Your task to perform on an android device: open wifi settings Image 0: 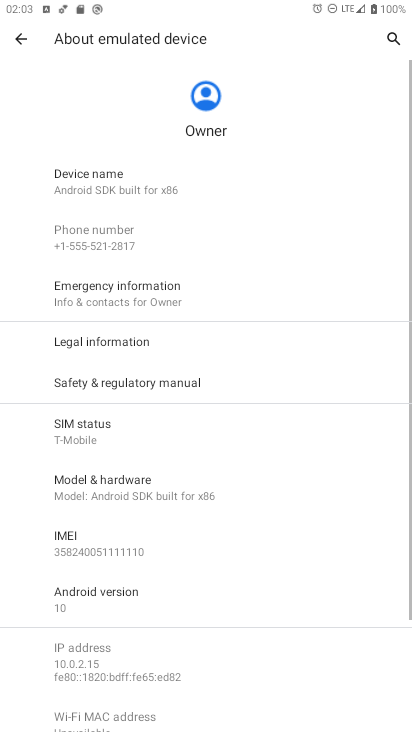
Step 0: press home button
Your task to perform on an android device: open wifi settings Image 1: 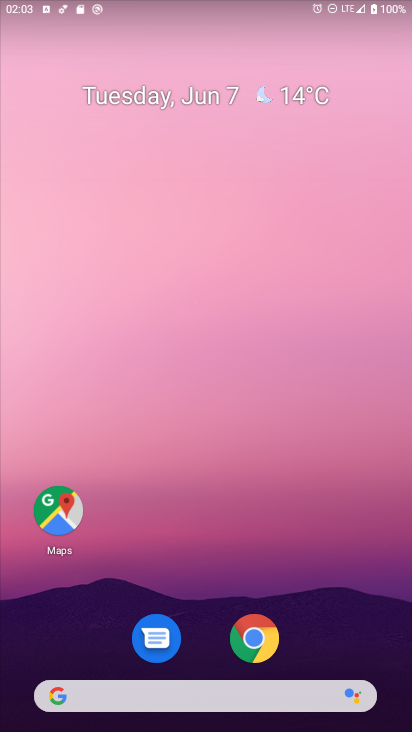
Step 1: drag from (255, 718) to (203, 220)
Your task to perform on an android device: open wifi settings Image 2: 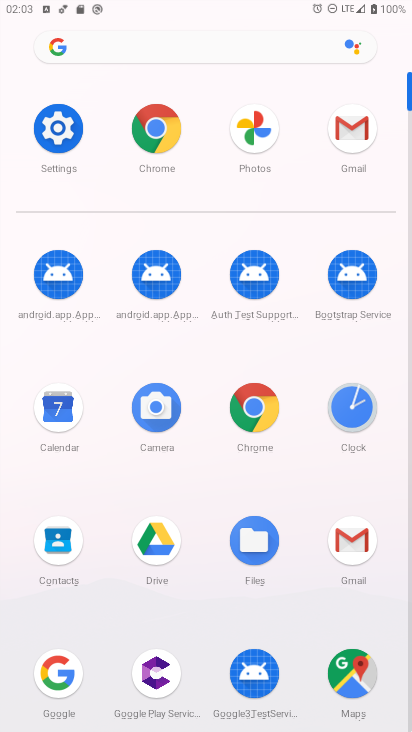
Step 2: click (64, 138)
Your task to perform on an android device: open wifi settings Image 3: 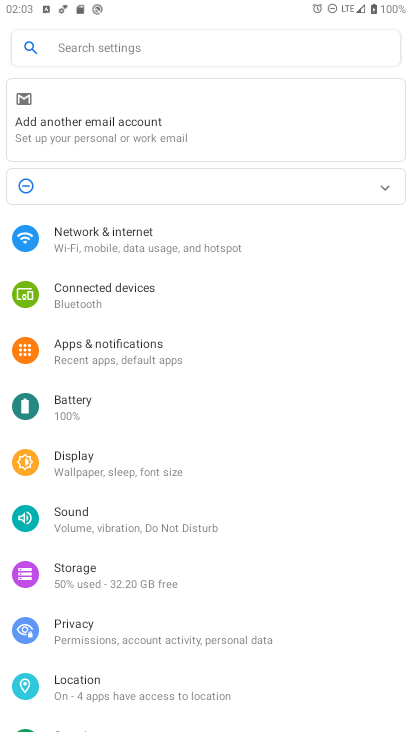
Step 3: click (132, 246)
Your task to perform on an android device: open wifi settings Image 4: 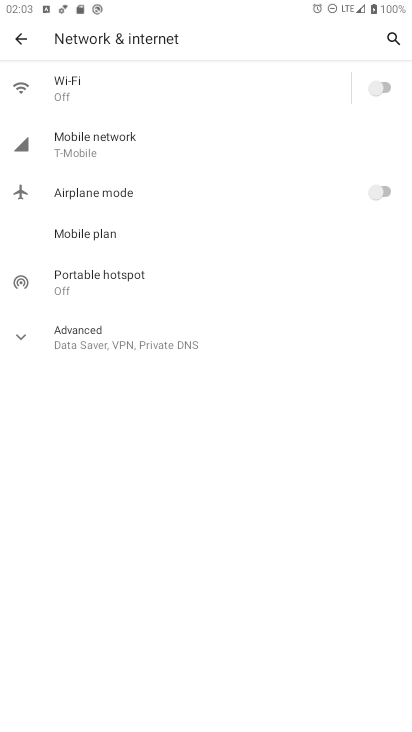
Step 4: click (196, 79)
Your task to perform on an android device: open wifi settings Image 5: 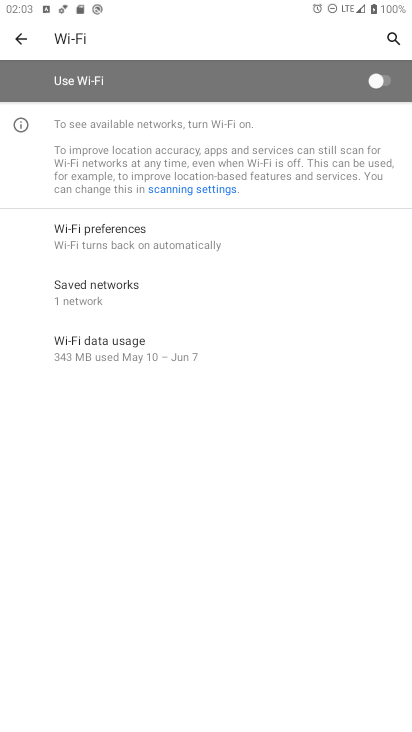
Step 5: click (378, 86)
Your task to perform on an android device: open wifi settings Image 6: 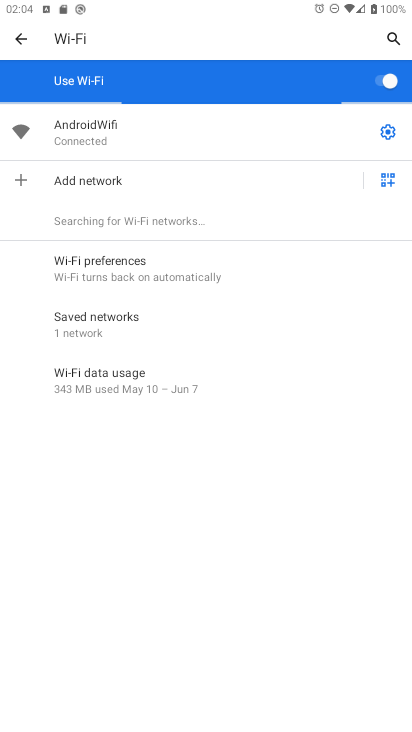
Step 6: task complete